Your task to perform on an android device: toggle notification dots Image 0: 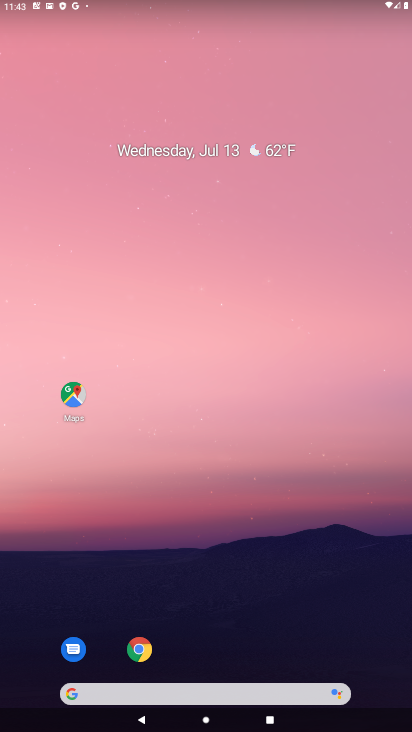
Step 0: drag from (381, 659) to (267, 4)
Your task to perform on an android device: toggle notification dots Image 1: 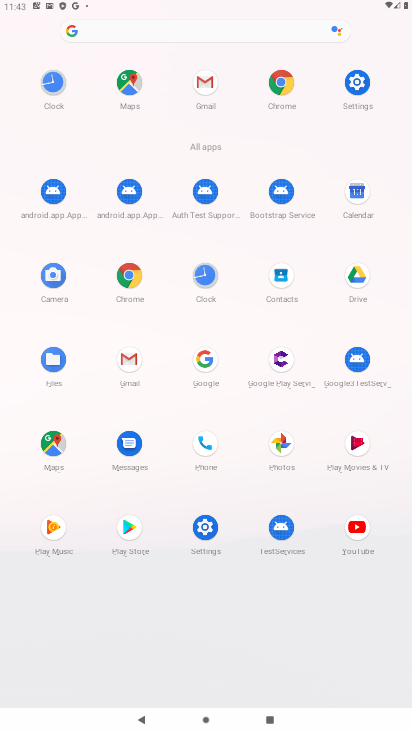
Step 1: click (208, 534)
Your task to perform on an android device: toggle notification dots Image 2: 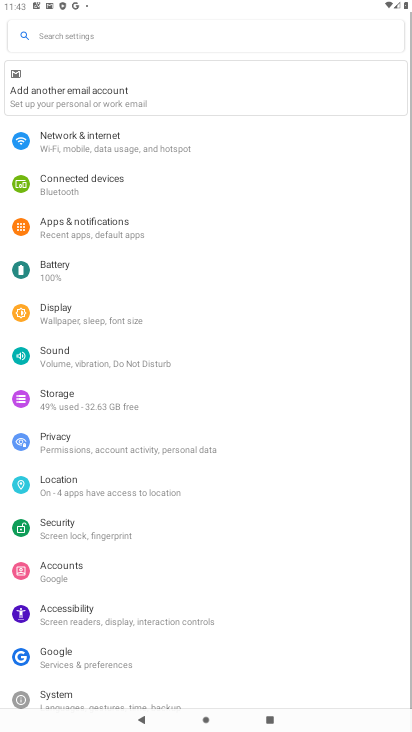
Step 2: click (110, 216)
Your task to perform on an android device: toggle notification dots Image 3: 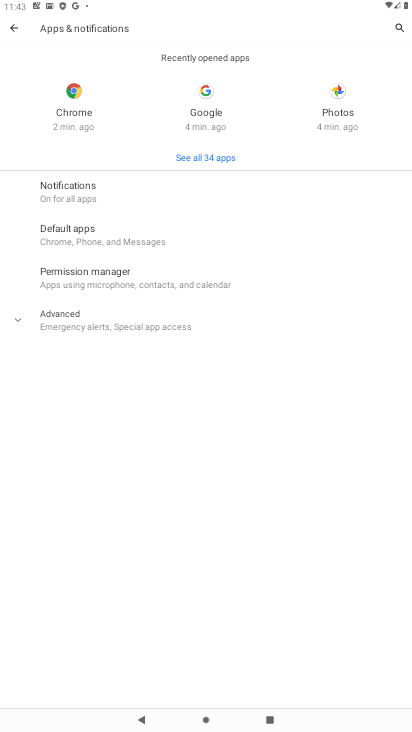
Step 3: click (88, 200)
Your task to perform on an android device: toggle notification dots Image 4: 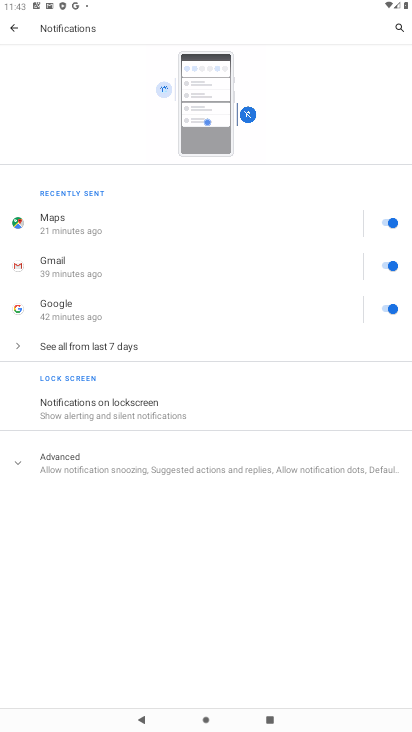
Step 4: click (83, 467)
Your task to perform on an android device: toggle notification dots Image 5: 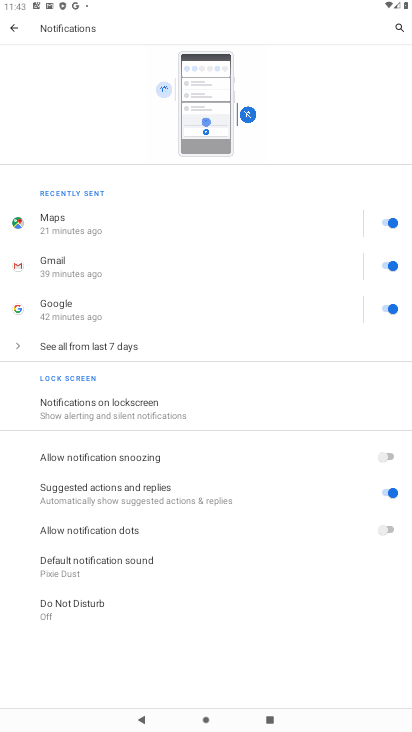
Step 5: click (197, 533)
Your task to perform on an android device: toggle notification dots Image 6: 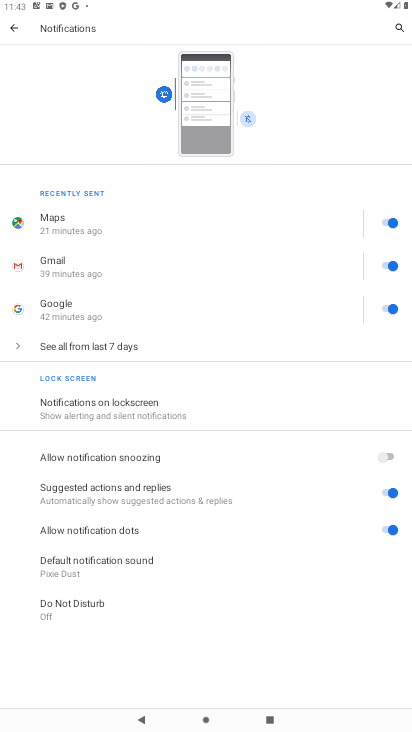
Step 6: task complete